Your task to perform on an android device: Open Google Image 0: 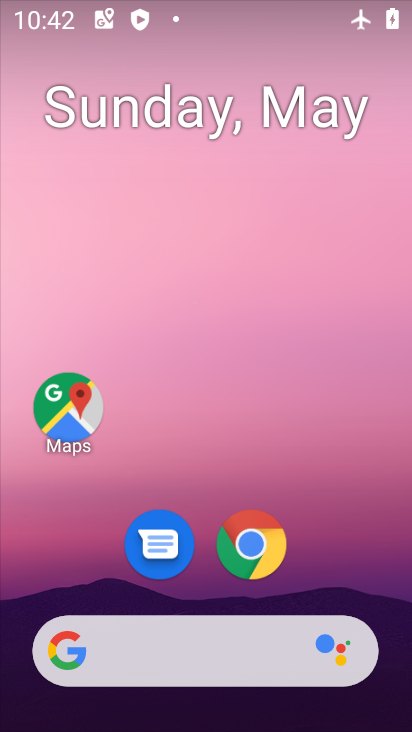
Step 0: drag from (345, 553) to (346, 261)
Your task to perform on an android device: Open Google Image 1: 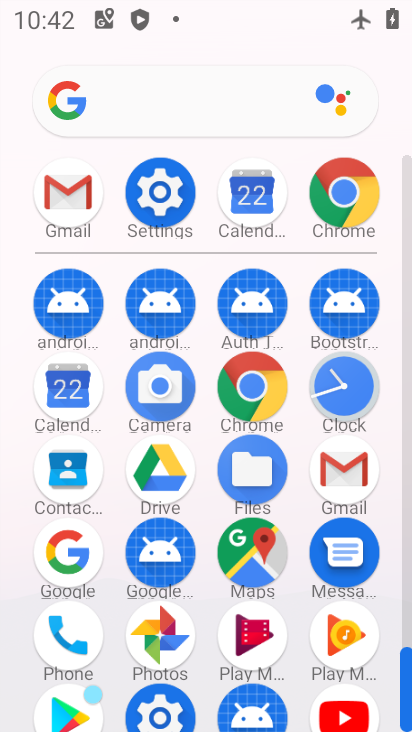
Step 1: click (78, 545)
Your task to perform on an android device: Open Google Image 2: 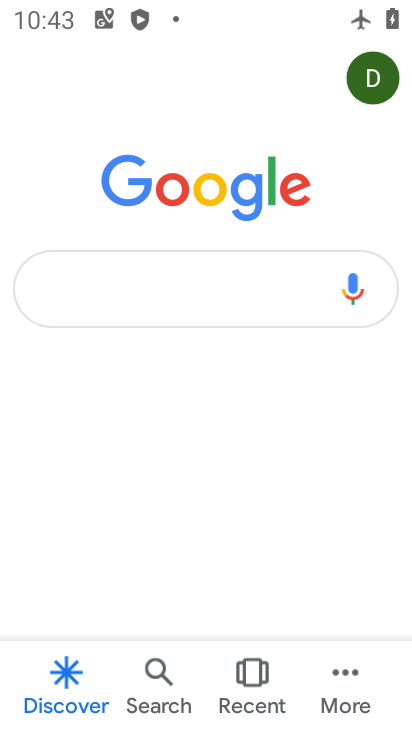
Step 2: click (77, 547)
Your task to perform on an android device: Open Google Image 3: 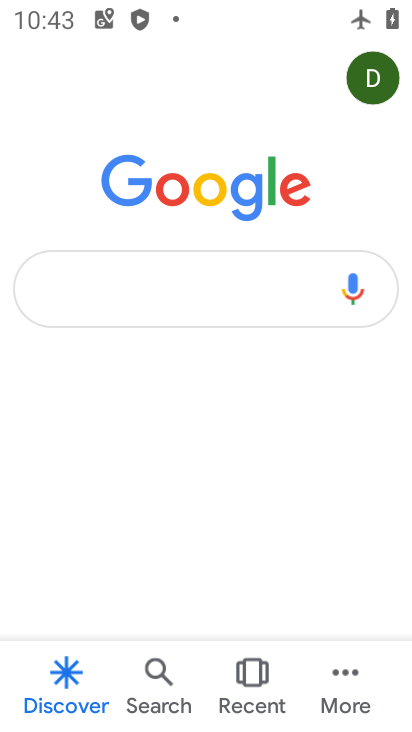
Step 3: task complete